Your task to perform on an android device: Open Google Maps Image 0: 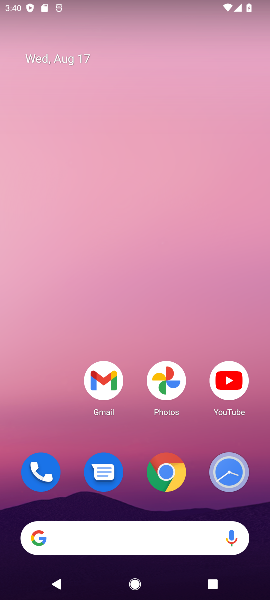
Step 0: drag from (135, 425) to (181, 54)
Your task to perform on an android device: Open Google Maps Image 1: 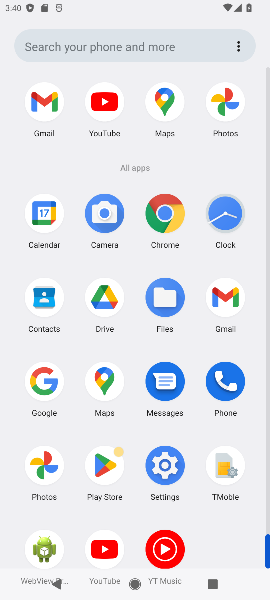
Step 1: click (163, 123)
Your task to perform on an android device: Open Google Maps Image 2: 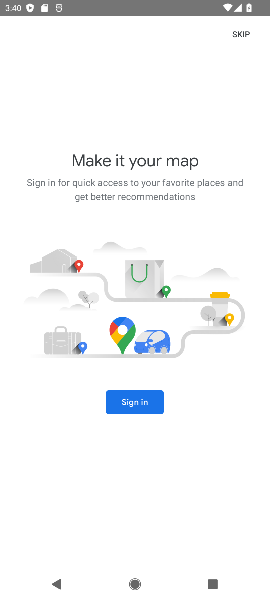
Step 2: task complete